Your task to perform on an android device: turn vacation reply on in the gmail app Image 0: 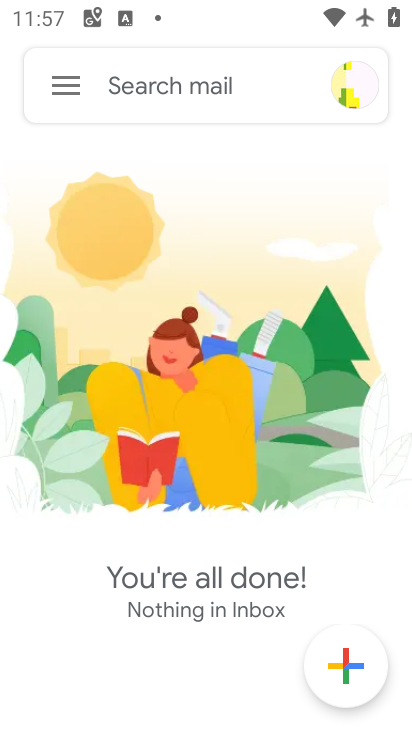
Step 0: click (64, 94)
Your task to perform on an android device: turn vacation reply on in the gmail app Image 1: 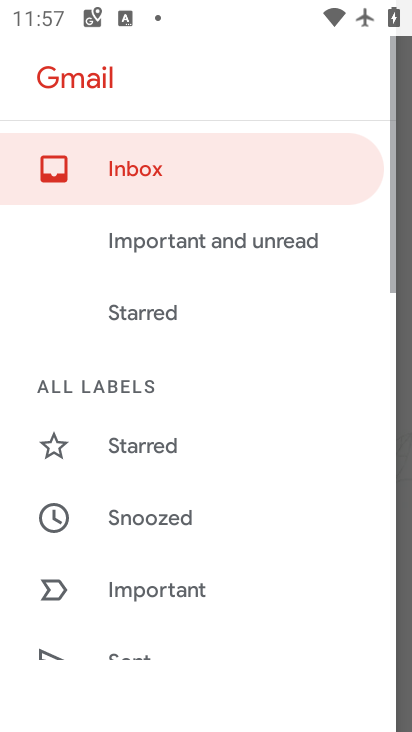
Step 1: drag from (215, 569) to (204, 73)
Your task to perform on an android device: turn vacation reply on in the gmail app Image 2: 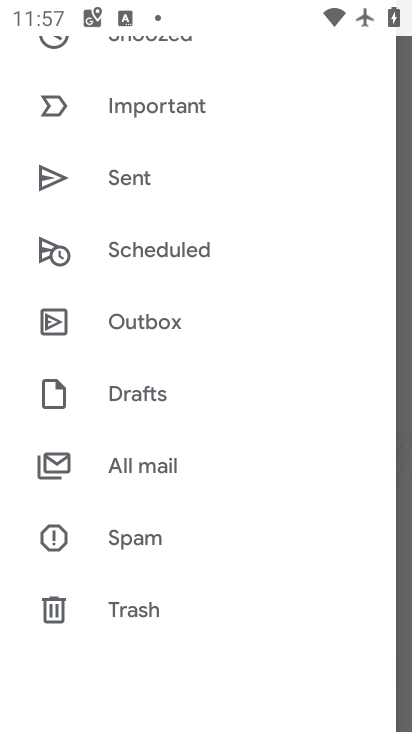
Step 2: drag from (186, 614) to (180, 177)
Your task to perform on an android device: turn vacation reply on in the gmail app Image 3: 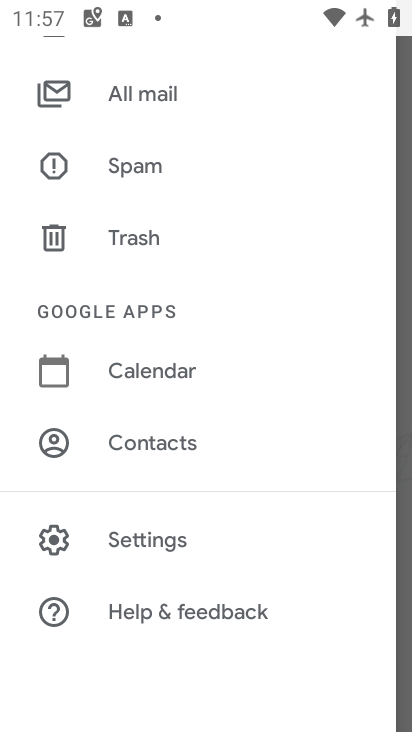
Step 3: click (160, 544)
Your task to perform on an android device: turn vacation reply on in the gmail app Image 4: 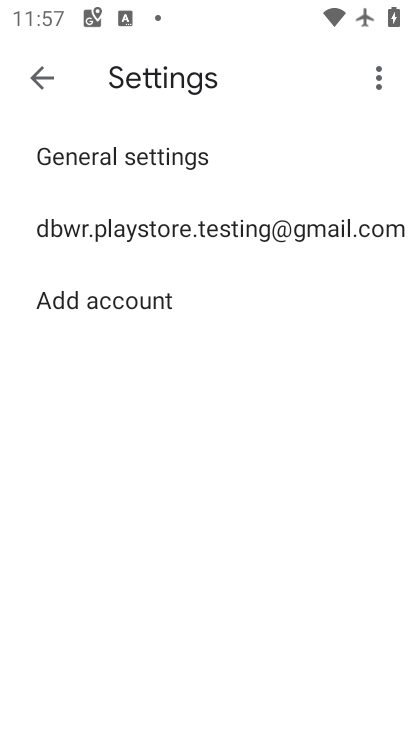
Step 4: click (157, 225)
Your task to perform on an android device: turn vacation reply on in the gmail app Image 5: 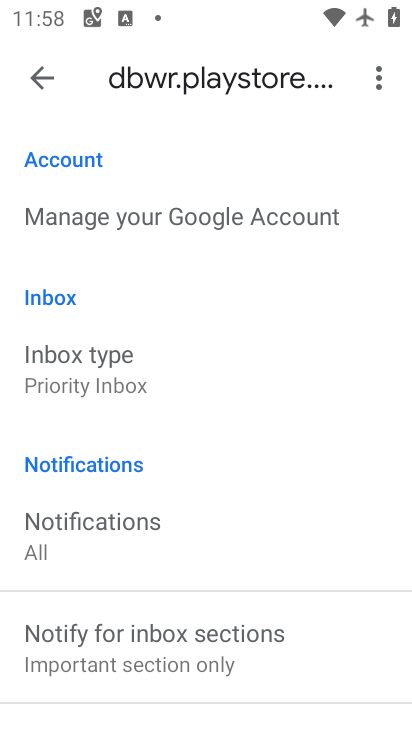
Step 5: drag from (165, 519) to (142, 183)
Your task to perform on an android device: turn vacation reply on in the gmail app Image 6: 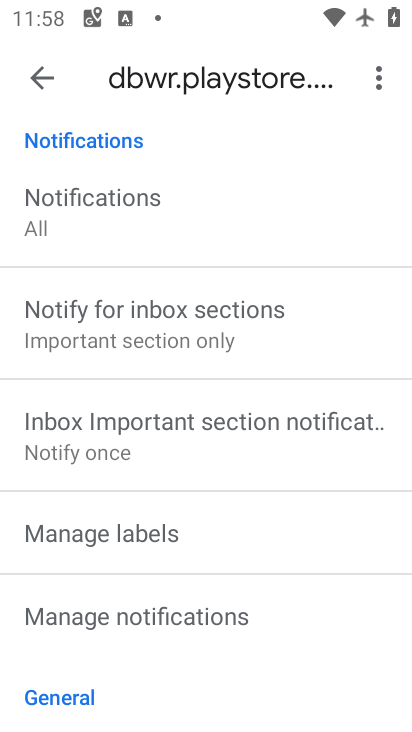
Step 6: drag from (207, 623) to (228, 169)
Your task to perform on an android device: turn vacation reply on in the gmail app Image 7: 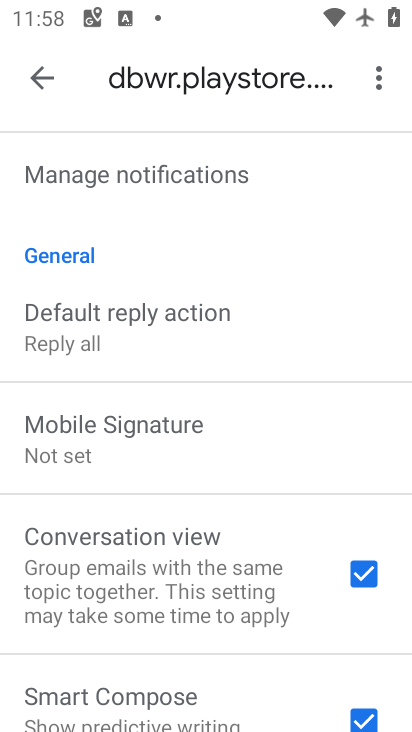
Step 7: drag from (212, 582) to (231, 186)
Your task to perform on an android device: turn vacation reply on in the gmail app Image 8: 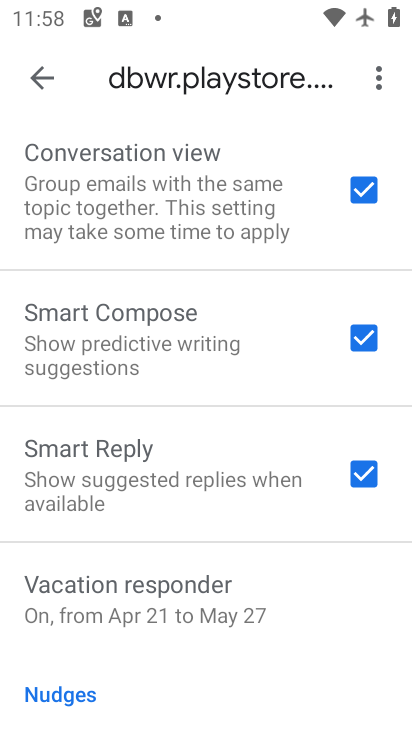
Step 8: click (173, 598)
Your task to perform on an android device: turn vacation reply on in the gmail app Image 9: 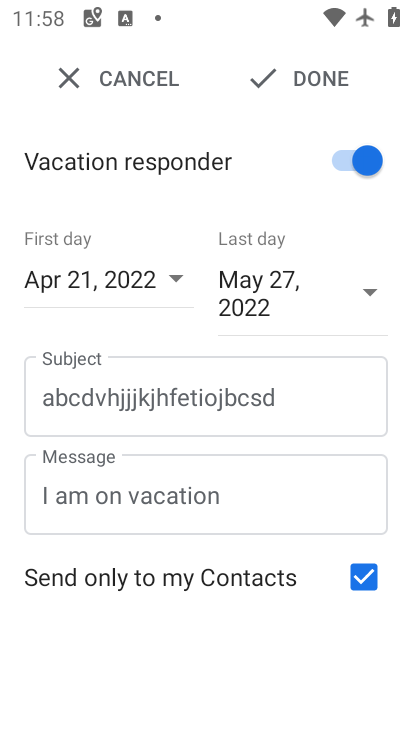
Step 9: click (306, 73)
Your task to perform on an android device: turn vacation reply on in the gmail app Image 10: 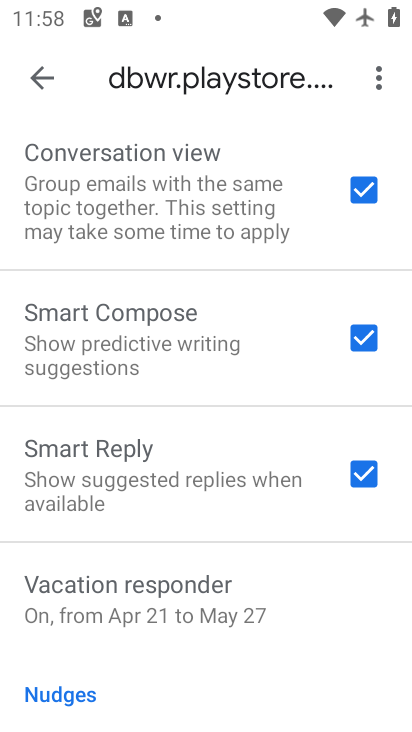
Step 10: task complete